Your task to perform on an android device: Go to Amazon Image 0: 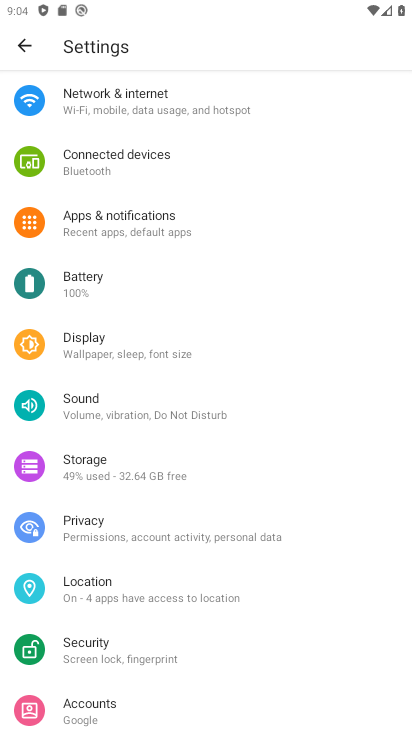
Step 0: press home button
Your task to perform on an android device: Go to Amazon Image 1: 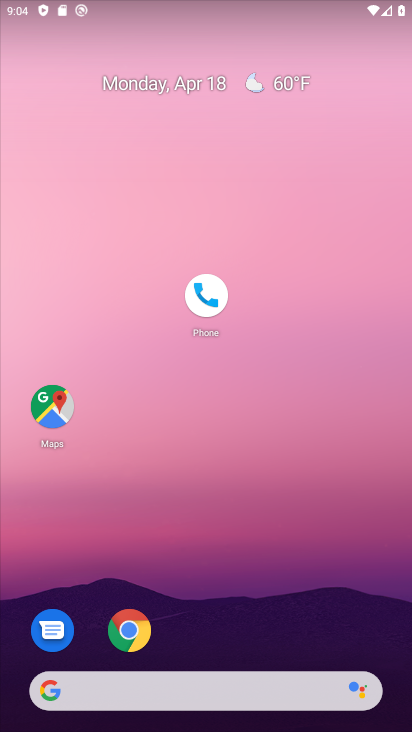
Step 1: drag from (247, 605) to (307, 117)
Your task to perform on an android device: Go to Amazon Image 2: 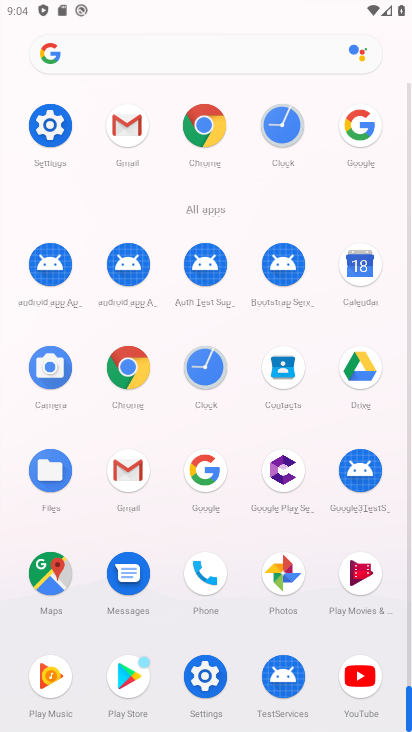
Step 2: click (111, 371)
Your task to perform on an android device: Go to Amazon Image 3: 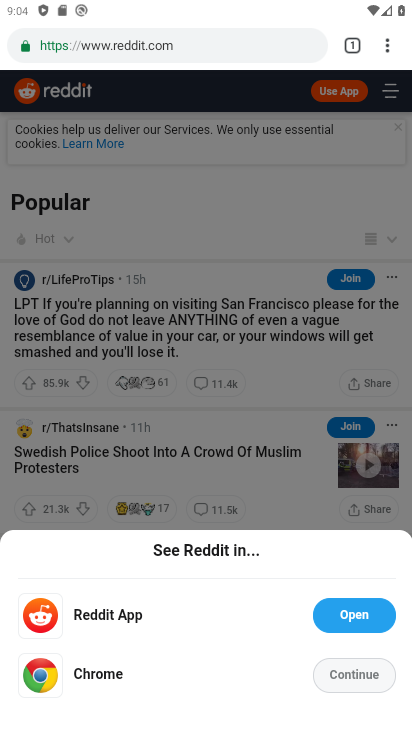
Step 3: click (198, 33)
Your task to perform on an android device: Go to Amazon Image 4: 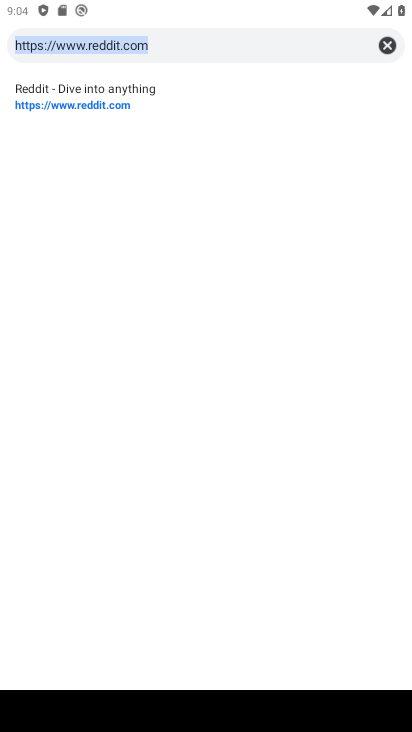
Step 4: type "amazone.com"
Your task to perform on an android device: Go to Amazon Image 5: 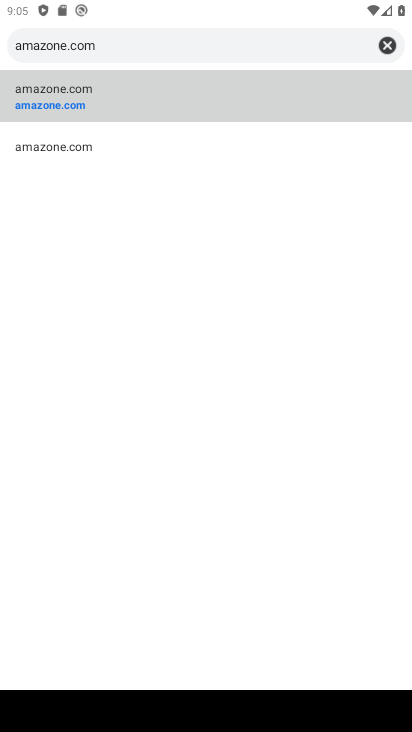
Step 5: click (114, 99)
Your task to perform on an android device: Go to Amazon Image 6: 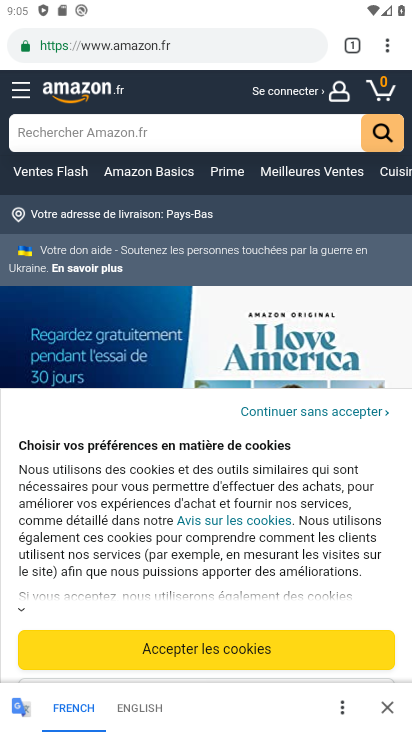
Step 6: task complete